Your task to perform on an android device: set an alarm Image 0: 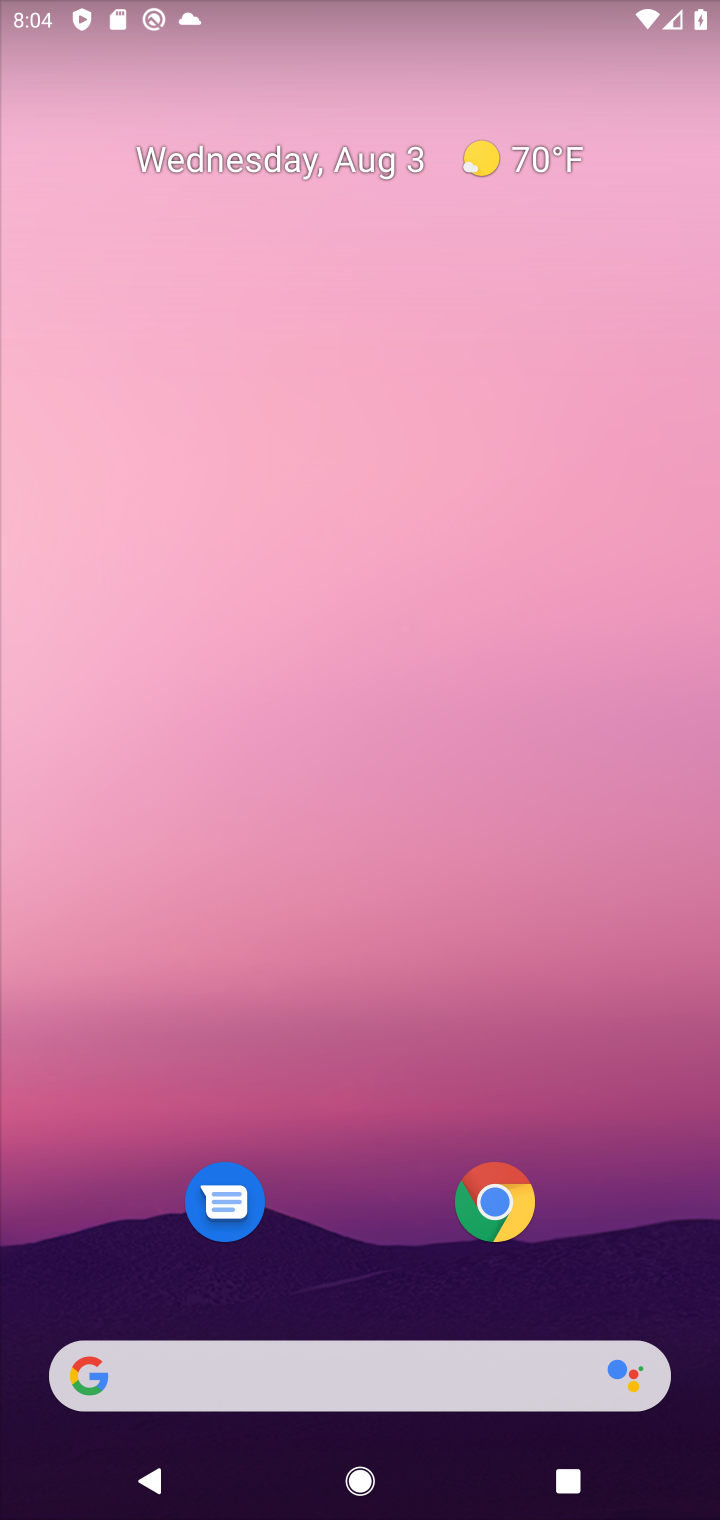
Step 0: drag from (287, 1370) to (379, 151)
Your task to perform on an android device: set an alarm Image 1: 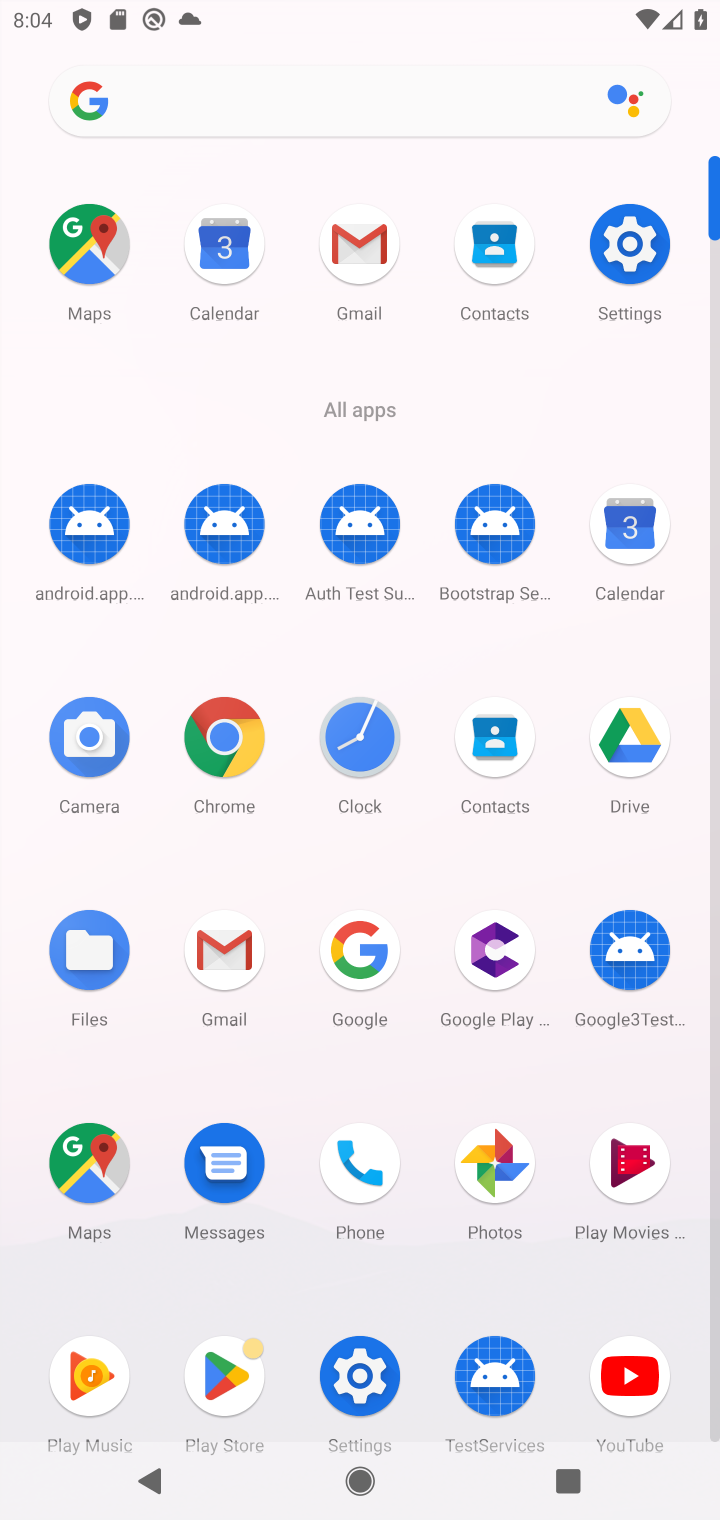
Step 1: click (363, 735)
Your task to perform on an android device: set an alarm Image 2: 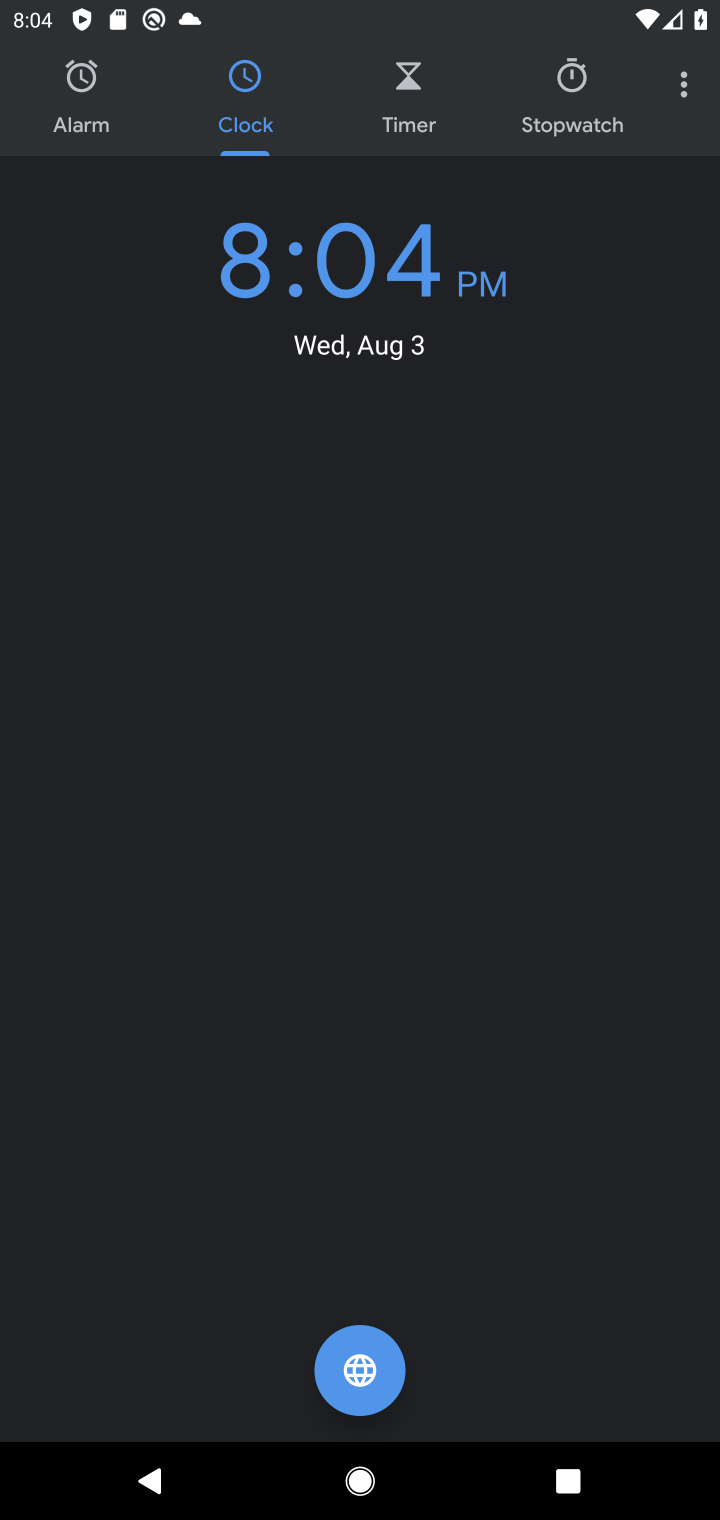
Step 2: click (83, 81)
Your task to perform on an android device: set an alarm Image 3: 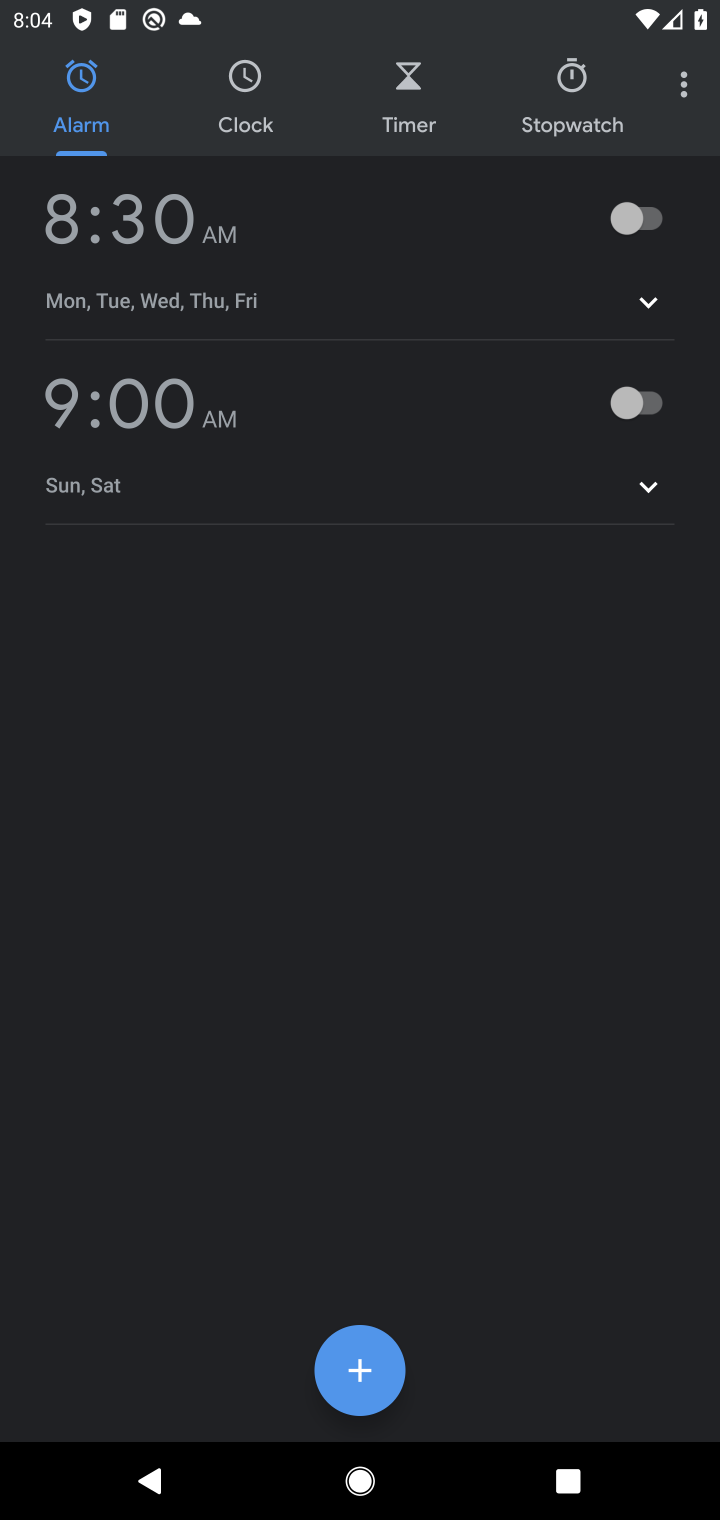
Step 3: click (359, 1373)
Your task to perform on an android device: set an alarm Image 4: 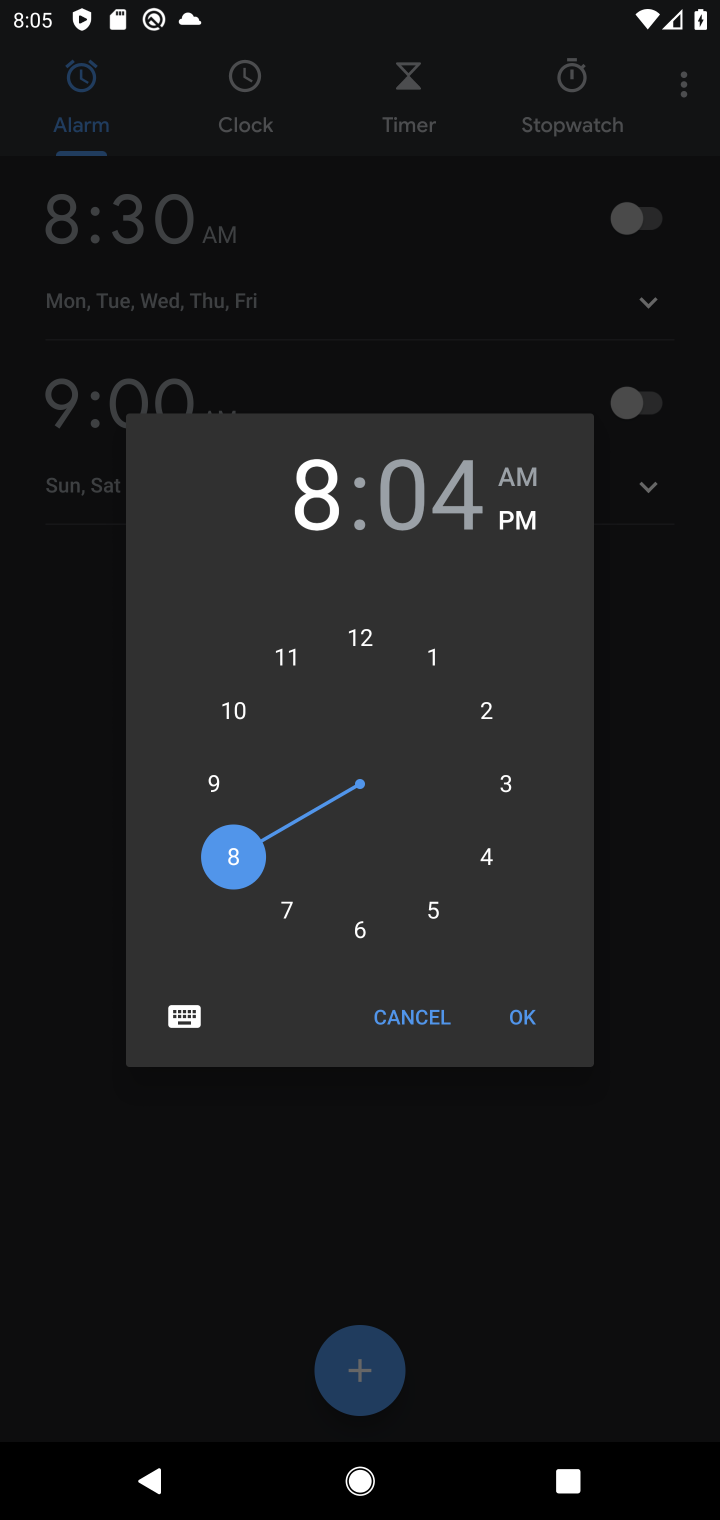
Step 4: click (297, 669)
Your task to perform on an android device: set an alarm Image 5: 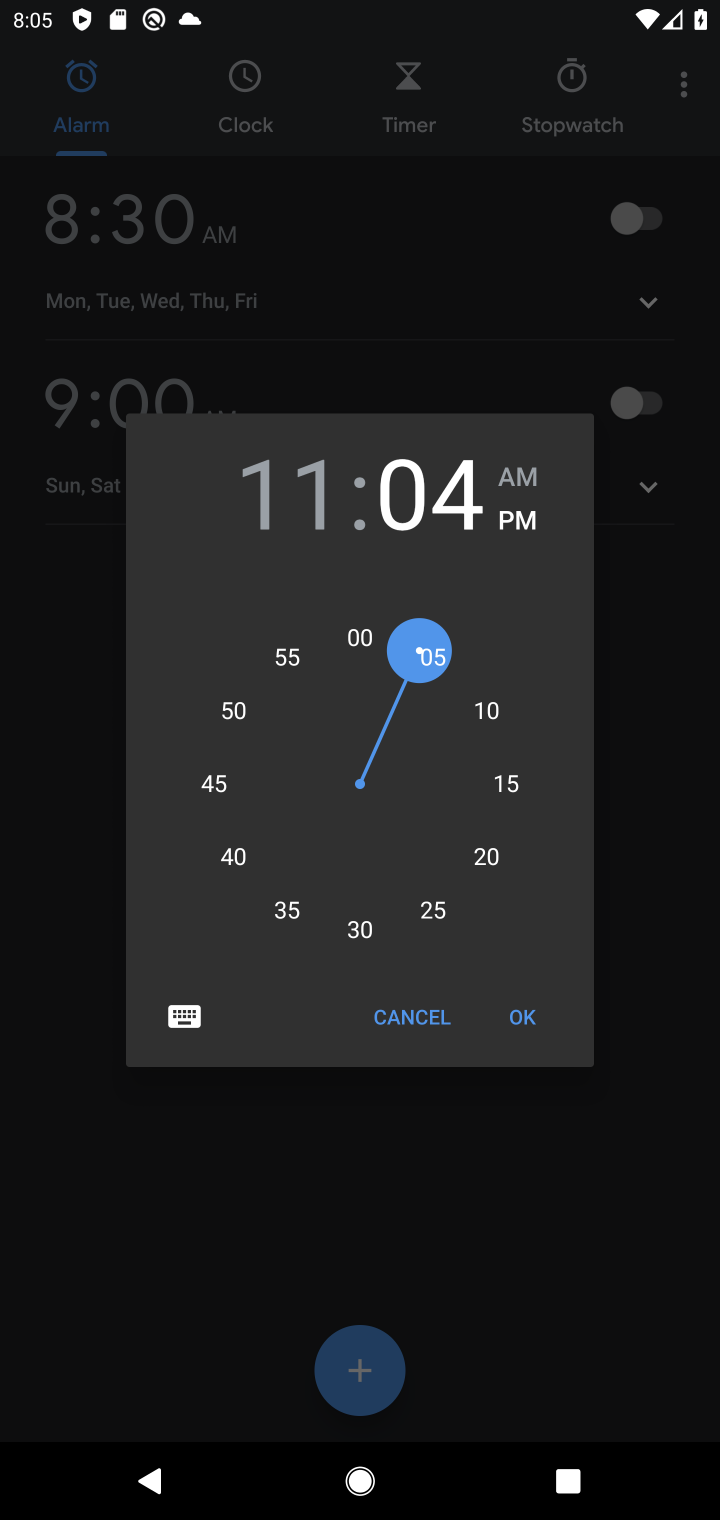
Step 5: click (361, 639)
Your task to perform on an android device: set an alarm Image 6: 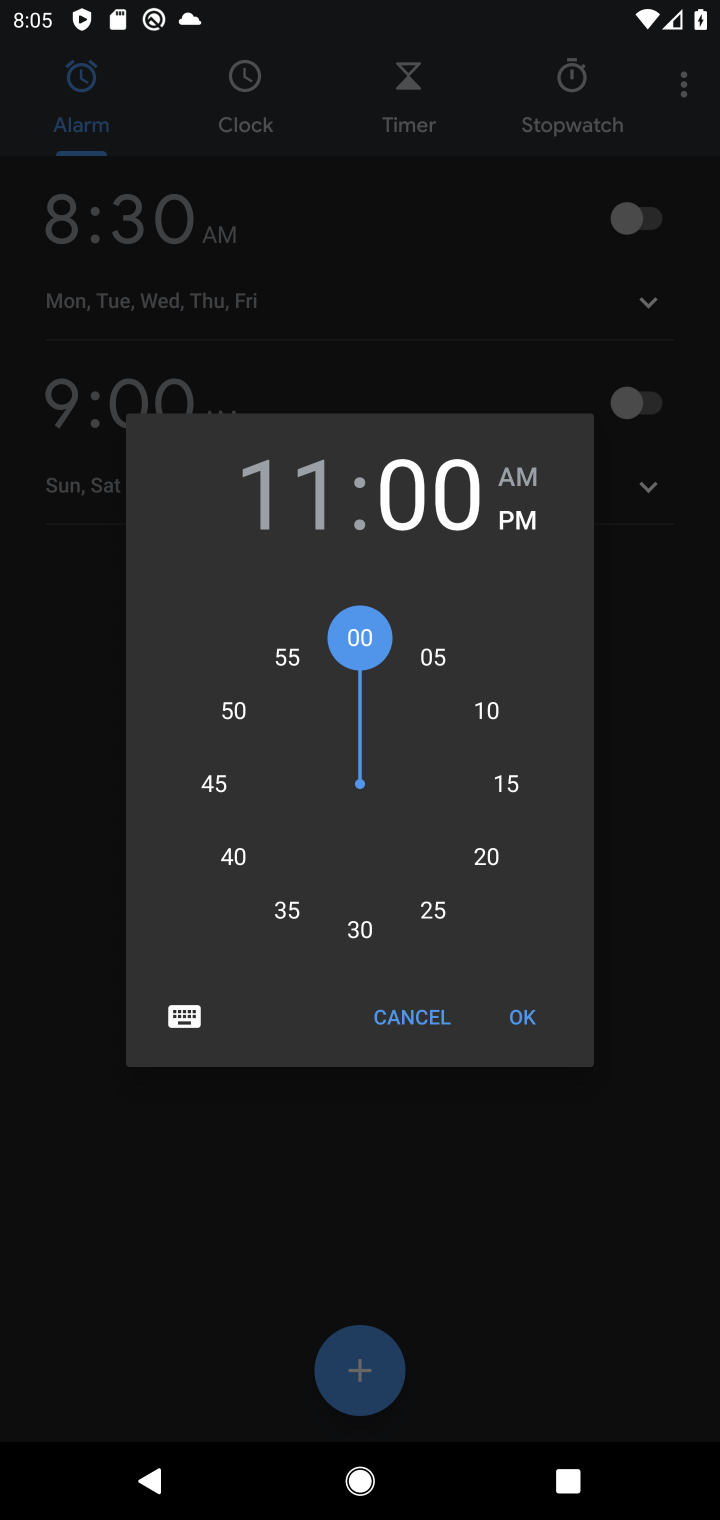
Step 6: click (526, 1010)
Your task to perform on an android device: set an alarm Image 7: 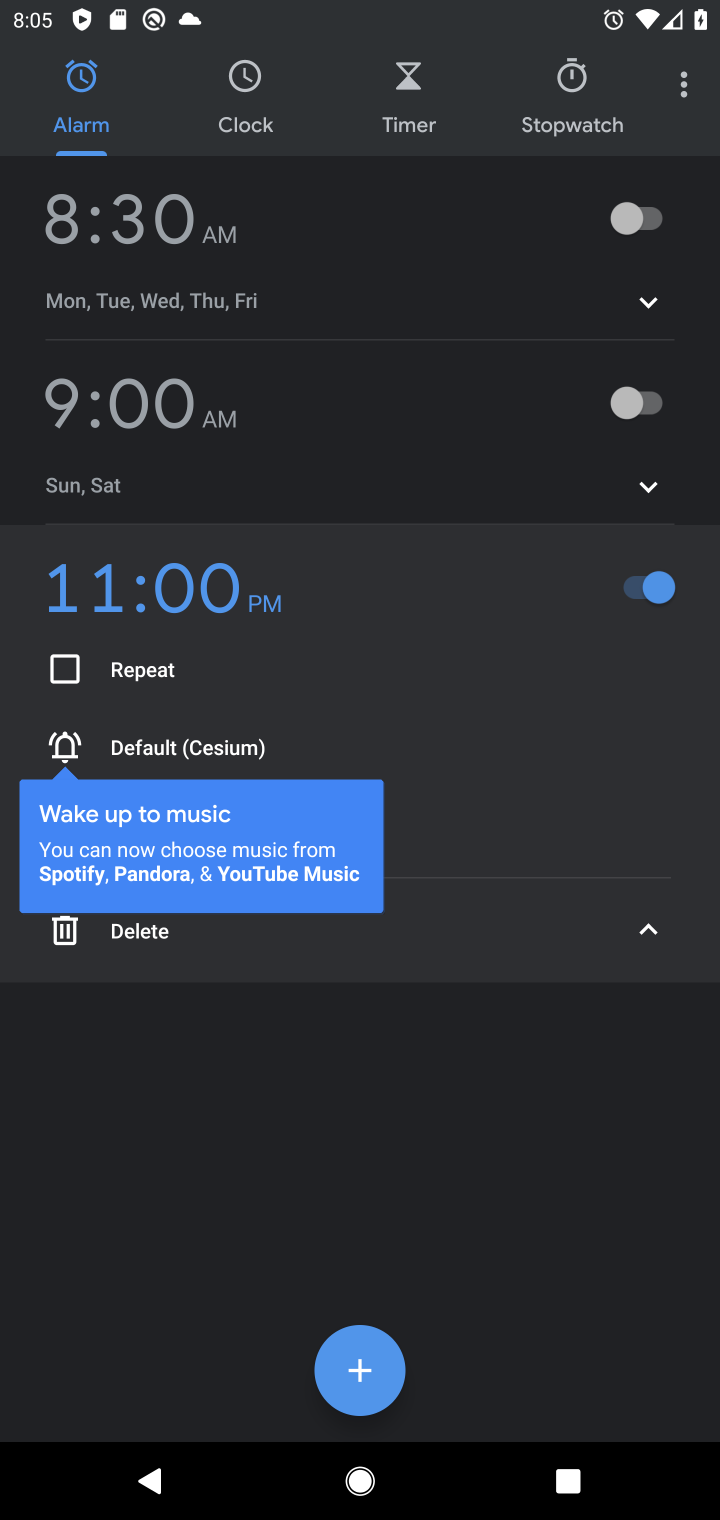
Step 7: click (667, 923)
Your task to perform on an android device: set an alarm Image 8: 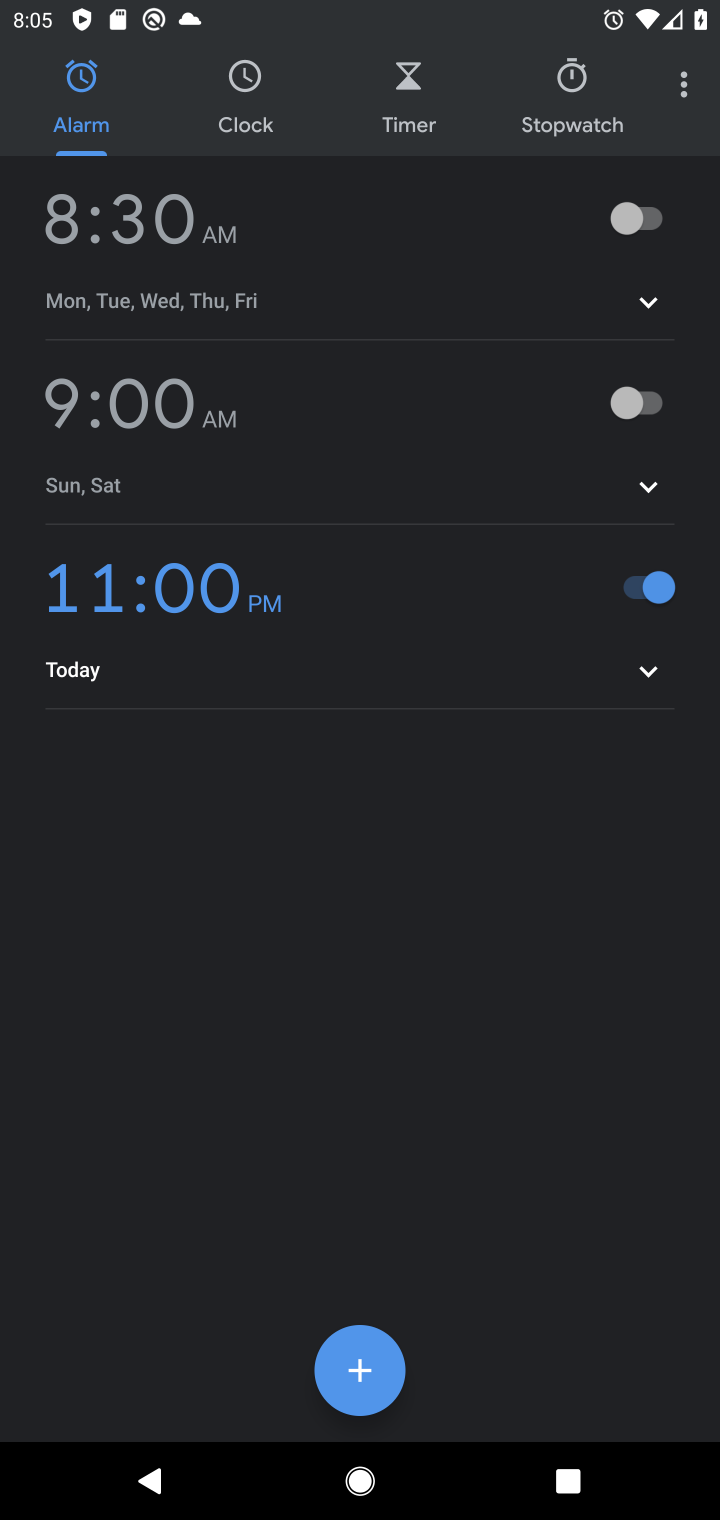
Step 8: task complete